Your task to perform on an android device: Set the phone to "Do not disturb". Image 0: 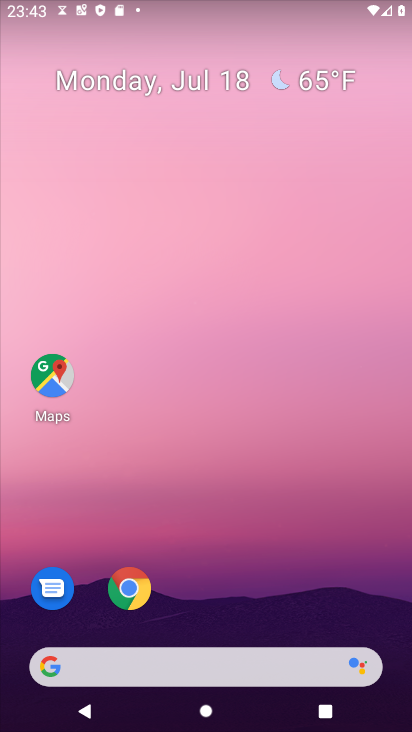
Step 0: press home button
Your task to perform on an android device: Set the phone to "Do not disturb". Image 1: 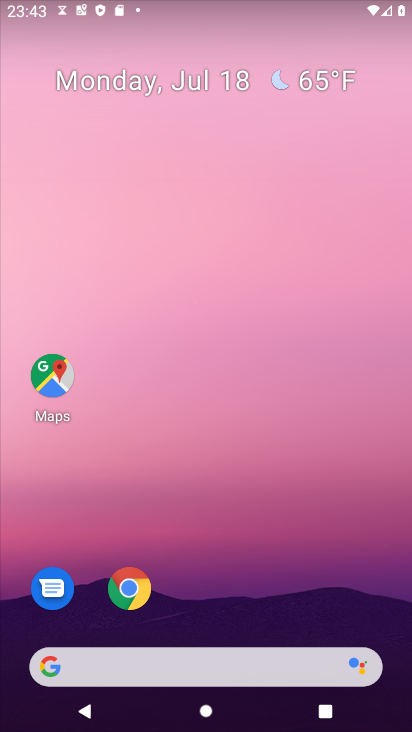
Step 1: drag from (291, 568) to (243, 85)
Your task to perform on an android device: Set the phone to "Do not disturb". Image 2: 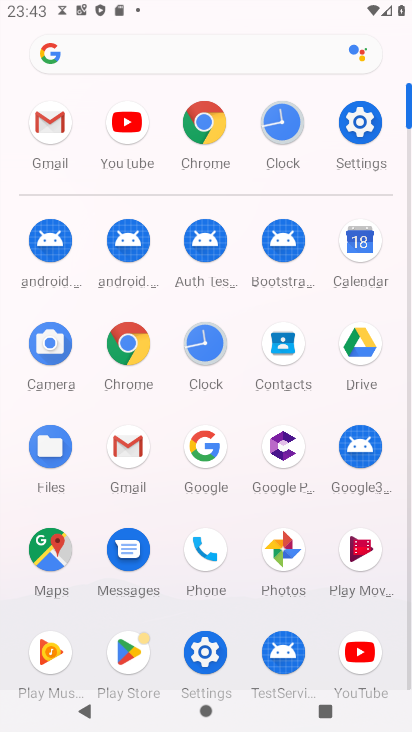
Step 2: drag from (220, 1) to (287, 726)
Your task to perform on an android device: Set the phone to "Do not disturb". Image 3: 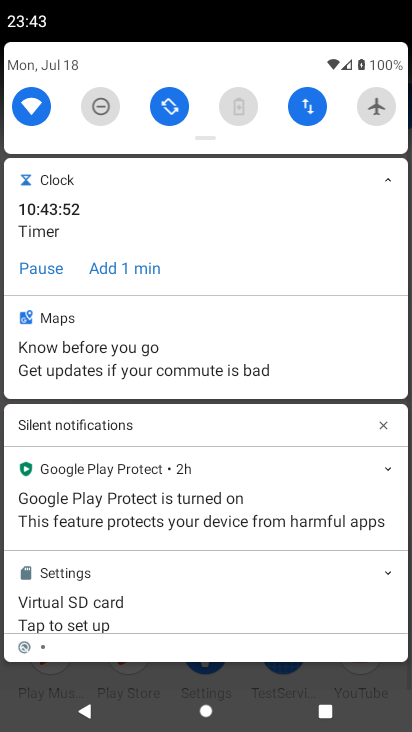
Step 3: drag from (205, 139) to (230, 633)
Your task to perform on an android device: Set the phone to "Do not disturb". Image 4: 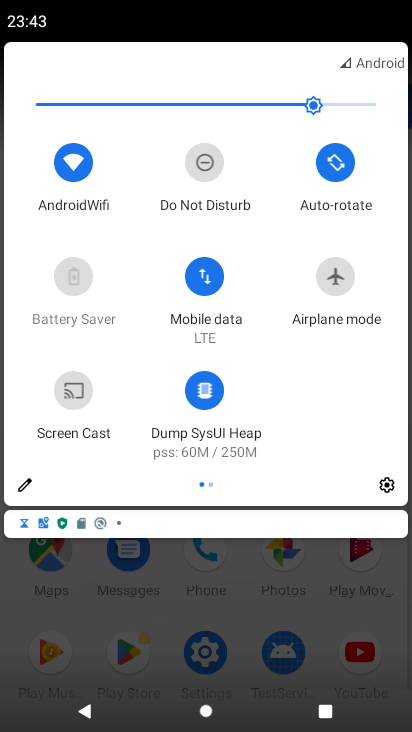
Step 4: click (208, 157)
Your task to perform on an android device: Set the phone to "Do not disturb". Image 5: 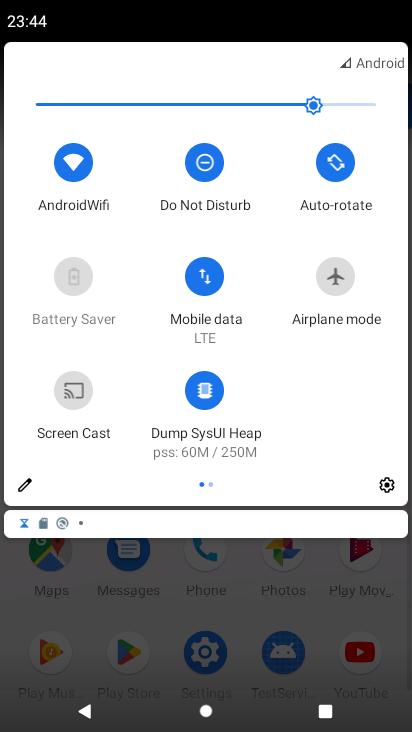
Step 5: task complete